Your task to perform on an android device: toggle pop-ups in chrome Image 0: 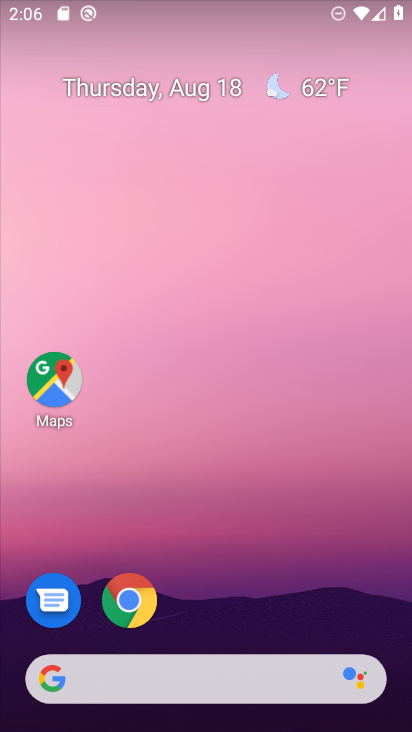
Step 0: click (136, 598)
Your task to perform on an android device: toggle pop-ups in chrome Image 1: 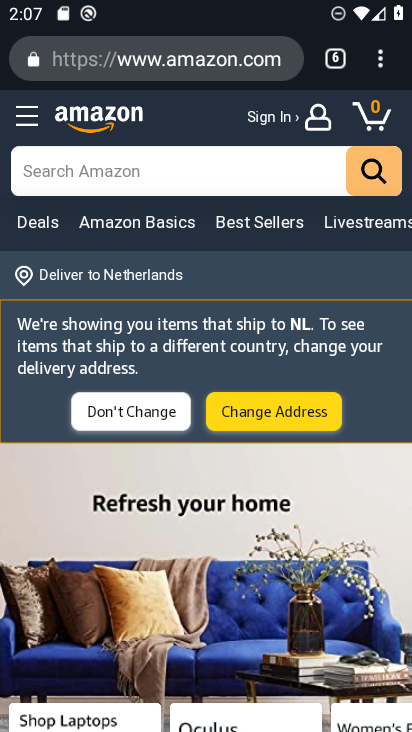
Step 1: click (379, 58)
Your task to perform on an android device: toggle pop-ups in chrome Image 2: 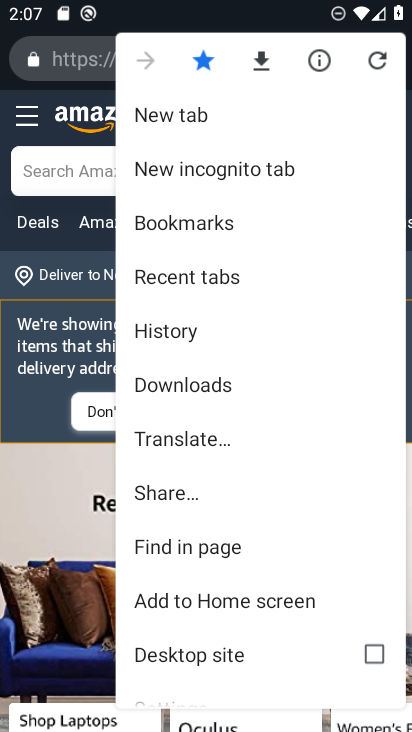
Step 2: drag from (245, 583) to (197, 290)
Your task to perform on an android device: toggle pop-ups in chrome Image 3: 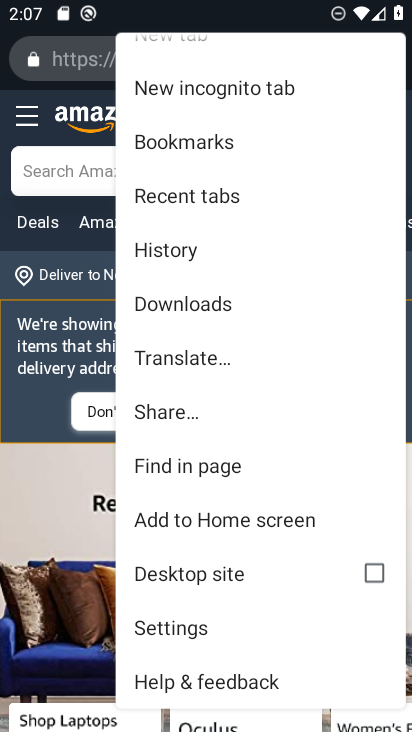
Step 3: click (169, 617)
Your task to perform on an android device: toggle pop-ups in chrome Image 4: 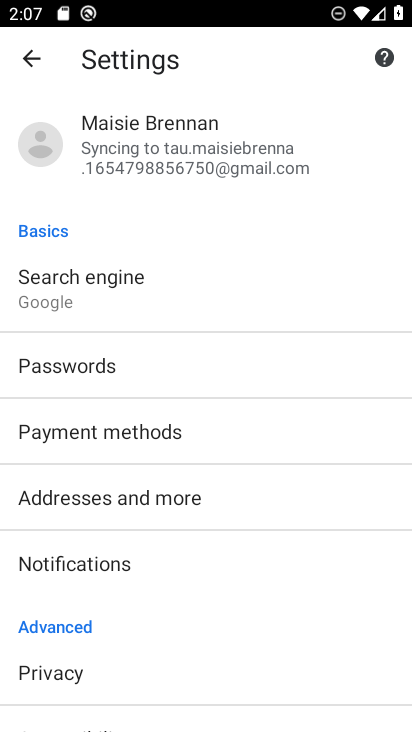
Step 4: drag from (183, 623) to (123, 253)
Your task to perform on an android device: toggle pop-ups in chrome Image 5: 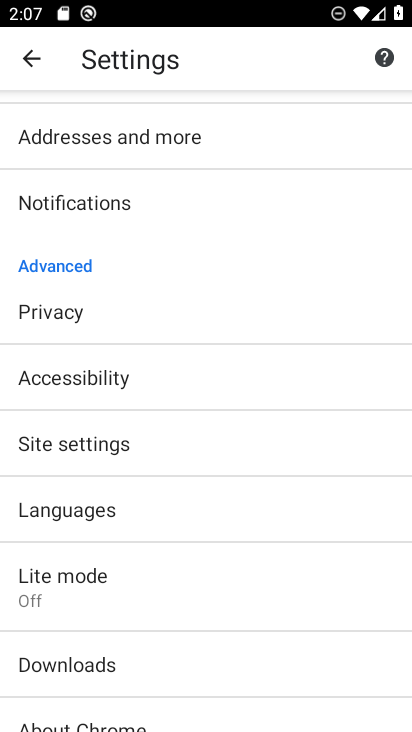
Step 5: click (62, 439)
Your task to perform on an android device: toggle pop-ups in chrome Image 6: 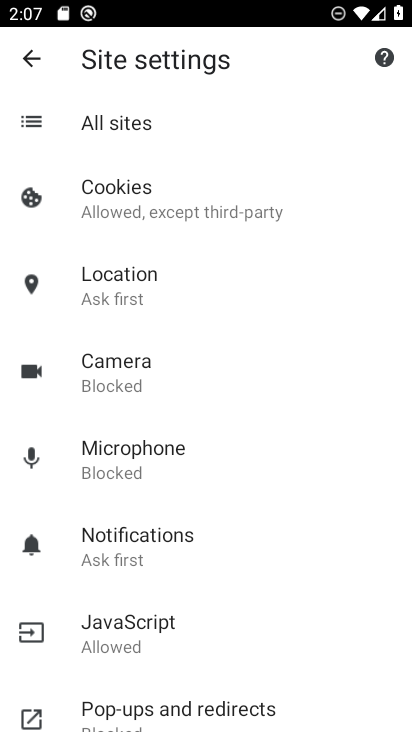
Step 6: click (165, 702)
Your task to perform on an android device: toggle pop-ups in chrome Image 7: 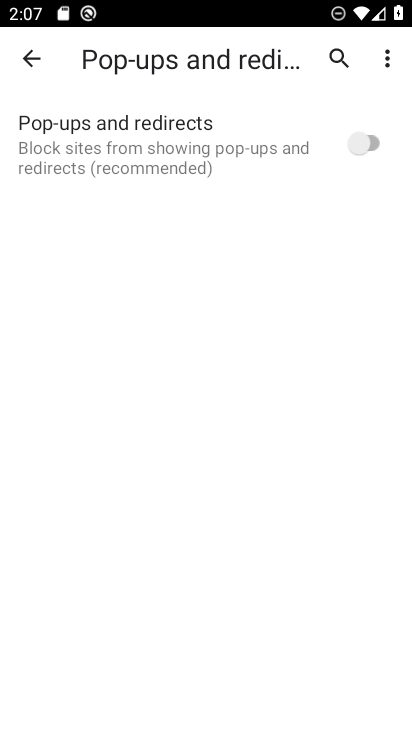
Step 7: click (360, 143)
Your task to perform on an android device: toggle pop-ups in chrome Image 8: 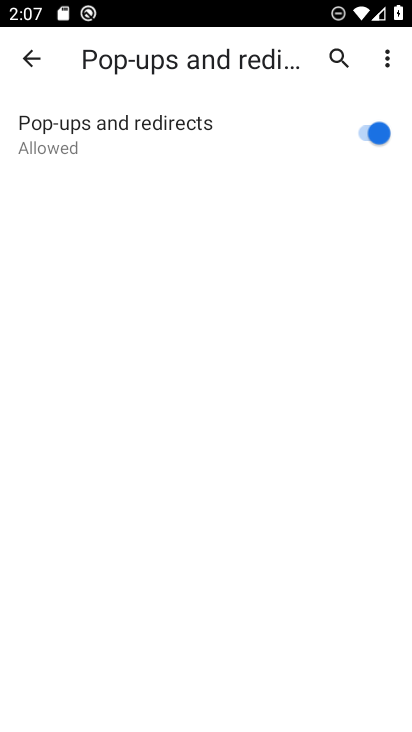
Step 8: task complete